Your task to perform on an android device: change keyboard looks Image 0: 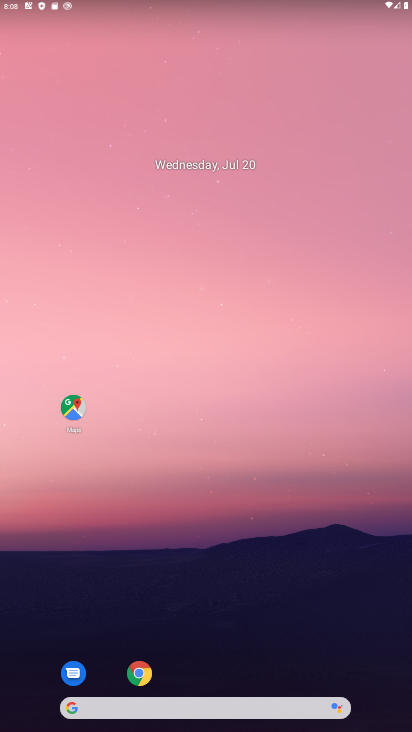
Step 0: drag from (192, 661) to (286, 190)
Your task to perform on an android device: change keyboard looks Image 1: 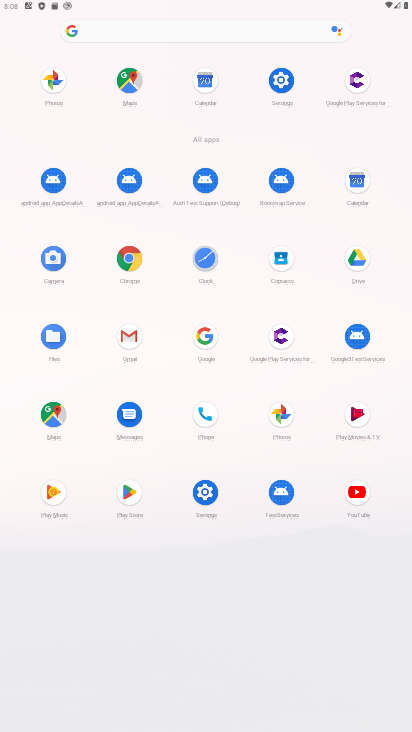
Step 1: click (194, 396)
Your task to perform on an android device: change keyboard looks Image 2: 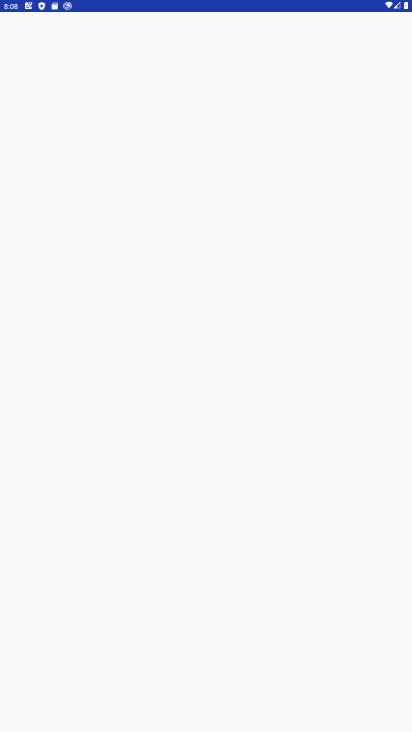
Step 2: click (200, 495)
Your task to perform on an android device: change keyboard looks Image 3: 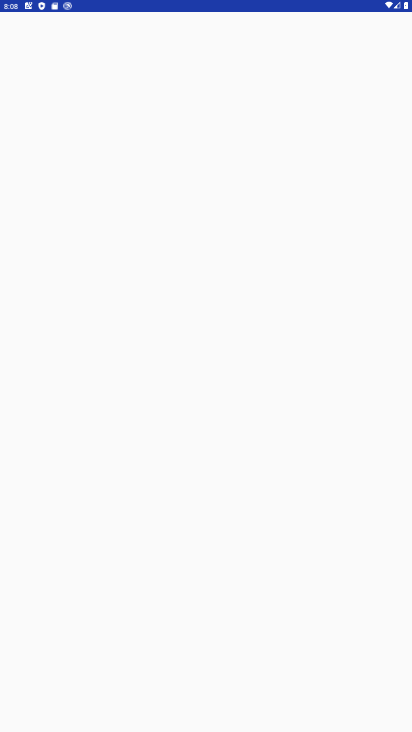
Step 3: drag from (230, 428) to (265, 205)
Your task to perform on an android device: change keyboard looks Image 4: 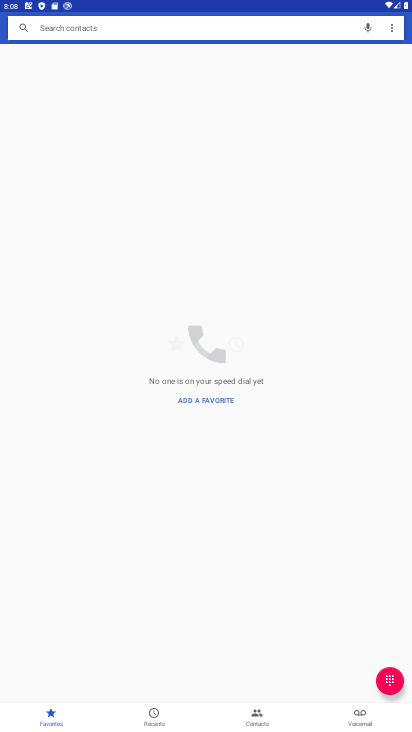
Step 4: drag from (231, 352) to (253, 124)
Your task to perform on an android device: change keyboard looks Image 5: 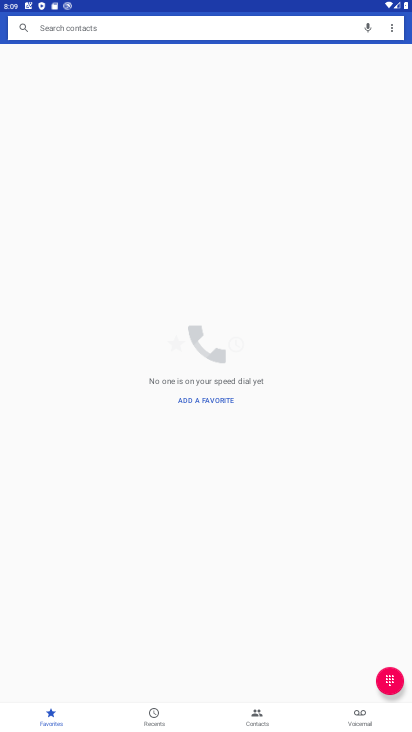
Step 5: press home button
Your task to perform on an android device: change keyboard looks Image 6: 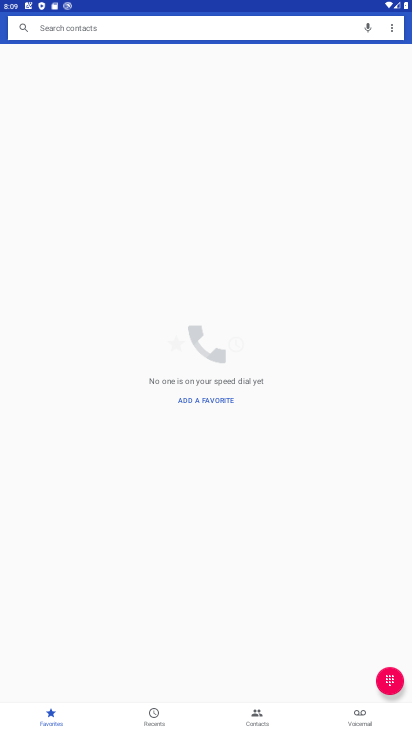
Step 6: press home button
Your task to perform on an android device: change keyboard looks Image 7: 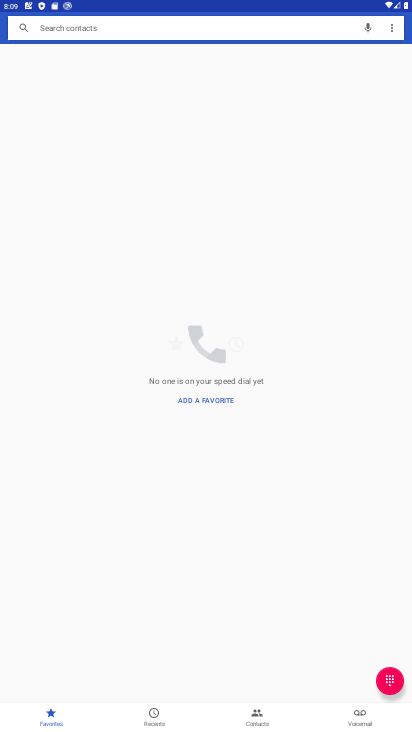
Step 7: click (254, 211)
Your task to perform on an android device: change keyboard looks Image 8: 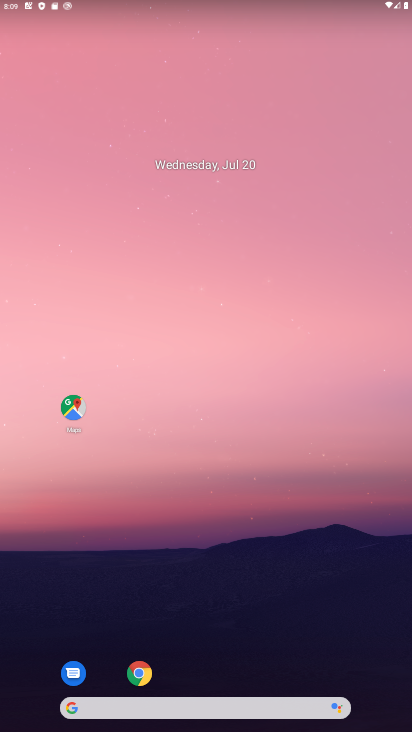
Step 8: drag from (206, 431) to (204, 29)
Your task to perform on an android device: change keyboard looks Image 9: 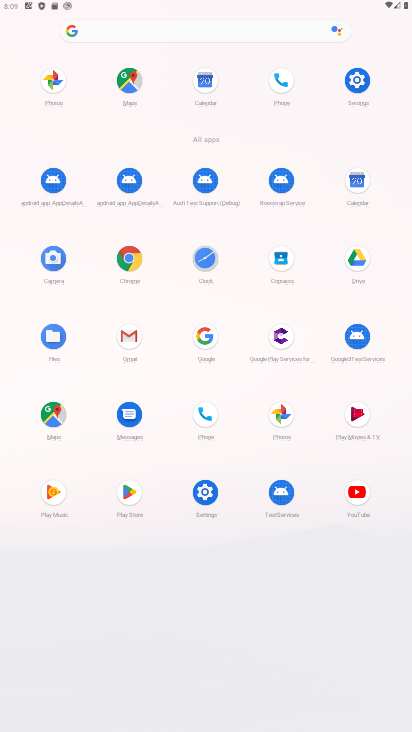
Step 9: click (200, 498)
Your task to perform on an android device: change keyboard looks Image 10: 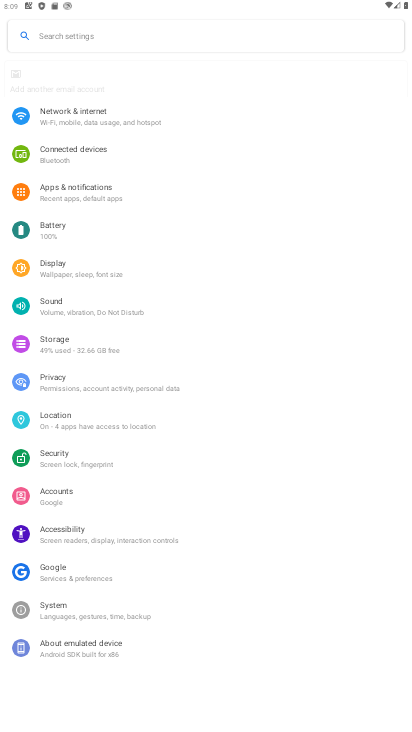
Step 10: drag from (186, 519) to (223, 183)
Your task to perform on an android device: change keyboard looks Image 11: 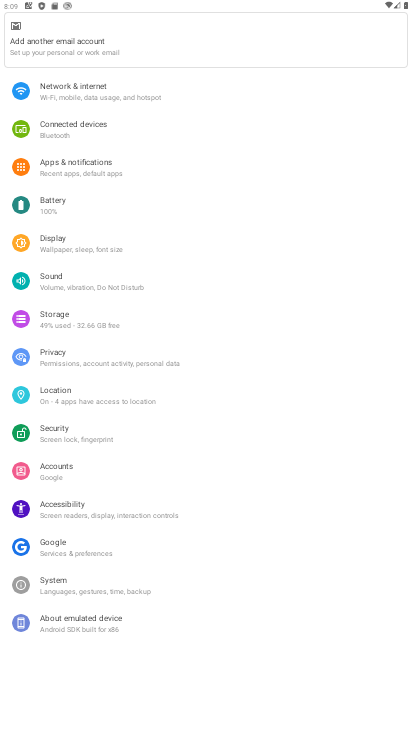
Step 11: drag from (158, 566) to (173, 251)
Your task to perform on an android device: change keyboard looks Image 12: 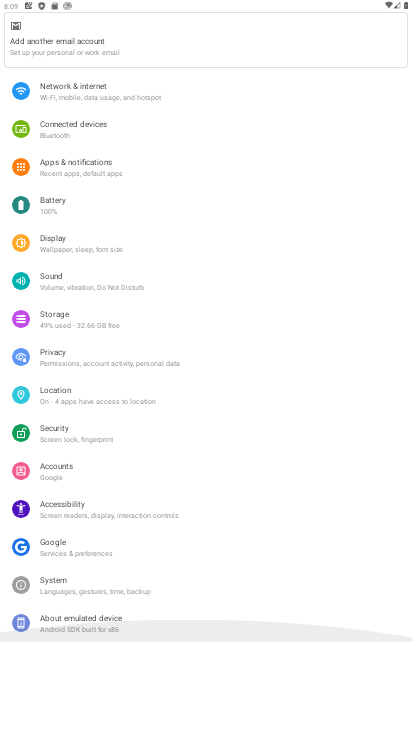
Step 12: drag from (224, 90) to (191, 660)
Your task to perform on an android device: change keyboard looks Image 13: 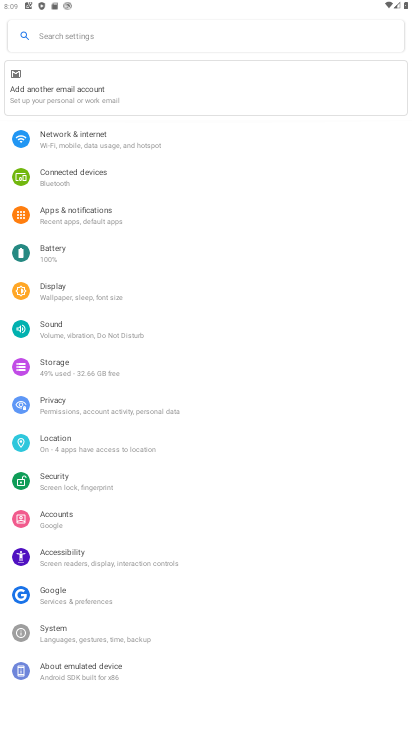
Step 13: drag from (152, 607) to (212, 160)
Your task to perform on an android device: change keyboard looks Image 14: 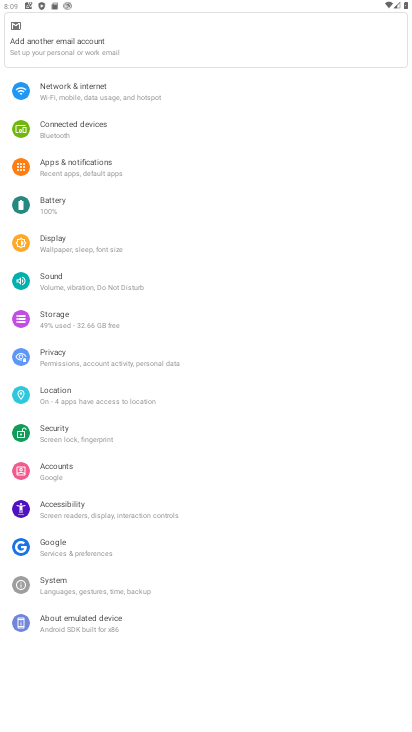
Step 14: click (58, 587)
Your task to perform on an android device: change keyboard looks Image 15: 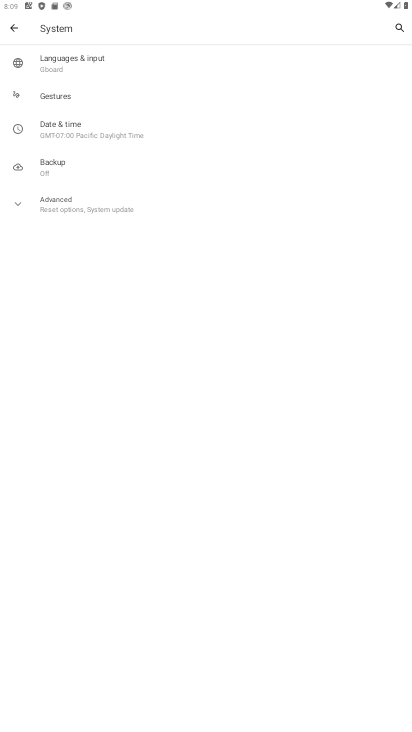
Step 15: click (95, 54)
Your task to perform on an android device: change keyboard looks Image 16: 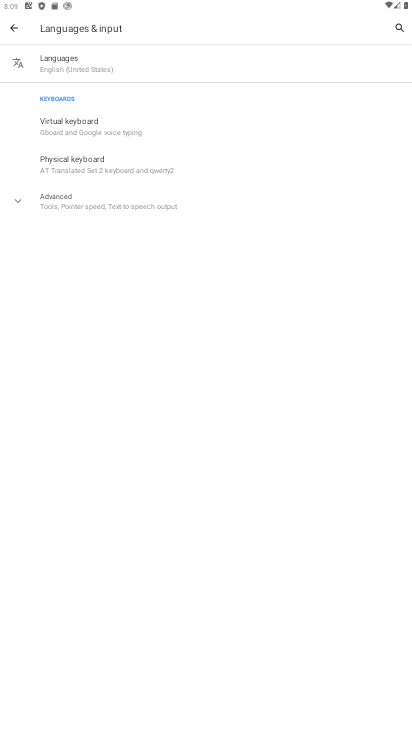
Step 16: click (83, 123)
Your task to perform on an android device: change keyboard looks Image 17: 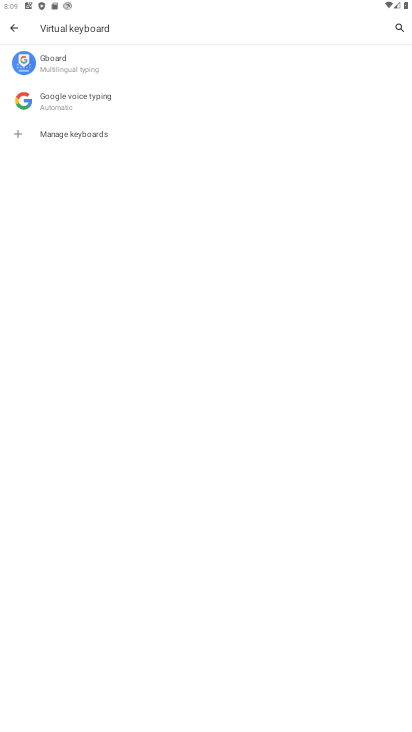
Step 17: click (124, 70)
Your task to perform on an android device: change keyboard looks Image 18: 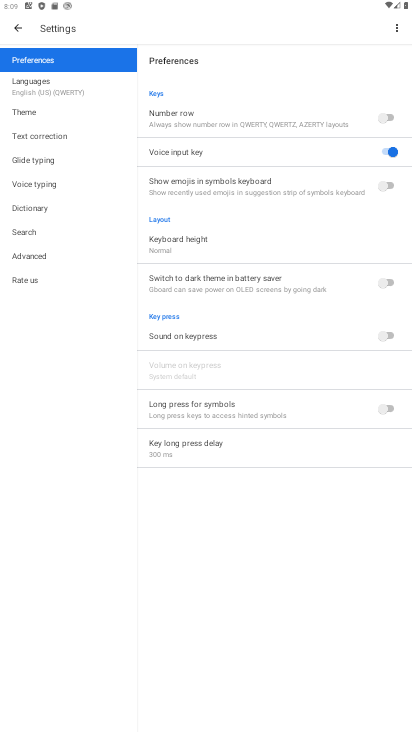
Step 18: drag from (178, 286) to (267, 0)
Your task to perform on an android device: change keyboard looks Image 19: 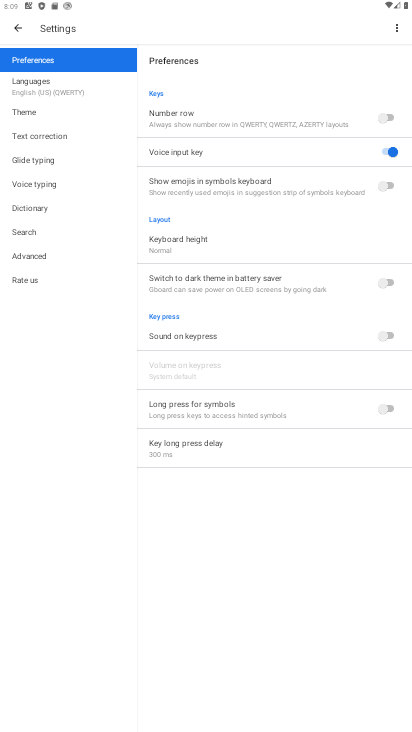
Step 19: click (6, 117)
Your task to perform on an android device: change keyboard looks Image 20: 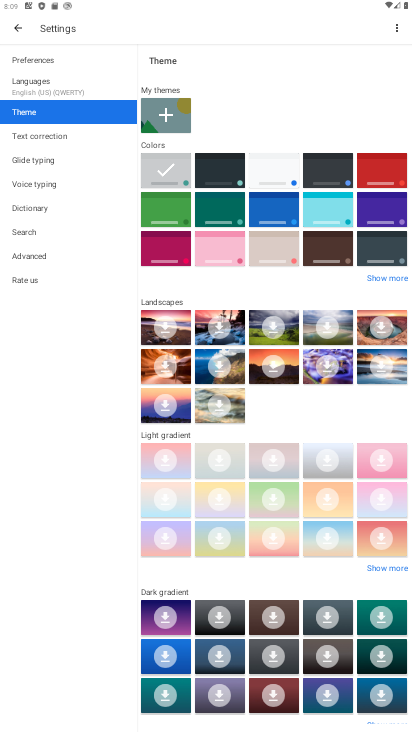
Step 20: click (228, 173)
Your task to perform on an android device: change keyboard looks Image 21: 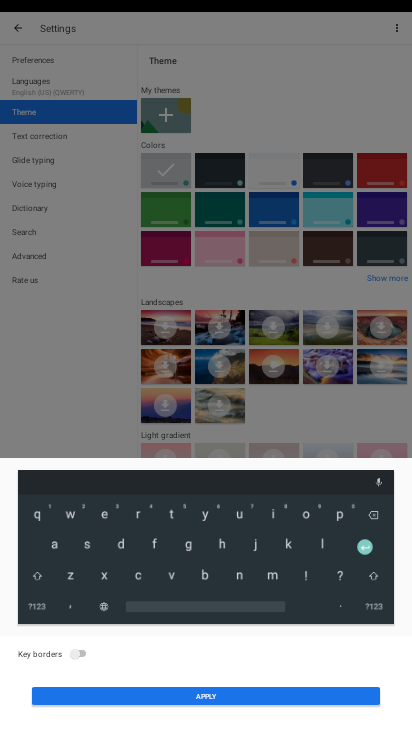
Step 21: click (226, 698)
Your task to perform on an android device: change keyboard looks Image 22: 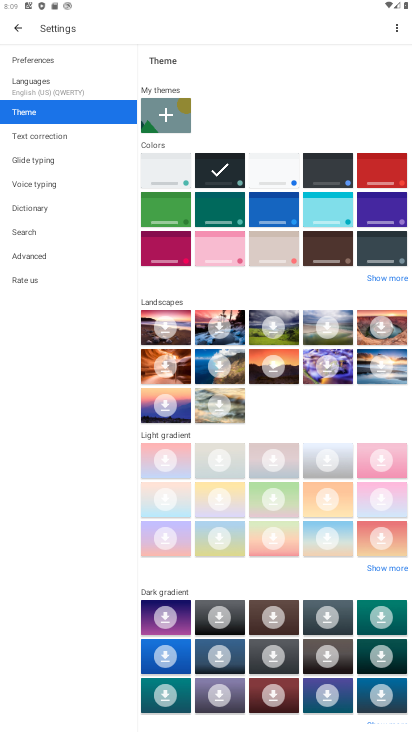
Step 22: task complete